Your task to perform on an android device: Open calendar and show me the first week of next month Image 0: 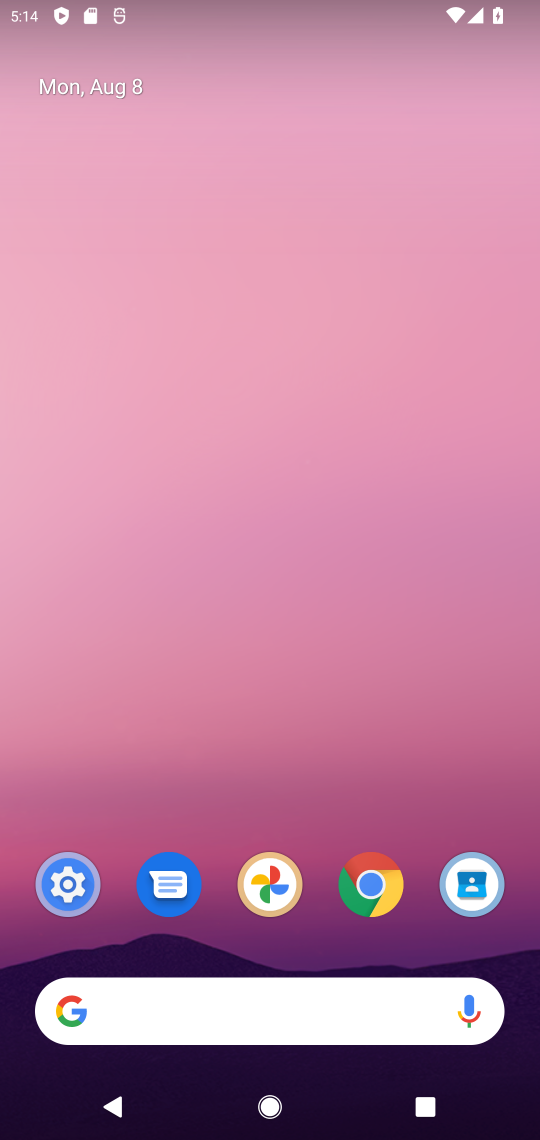
Step 0: drag from (419, 820) to (321, 190)
Your task to perform on an android device: Open calendar and show me the first week of next month Image 1: 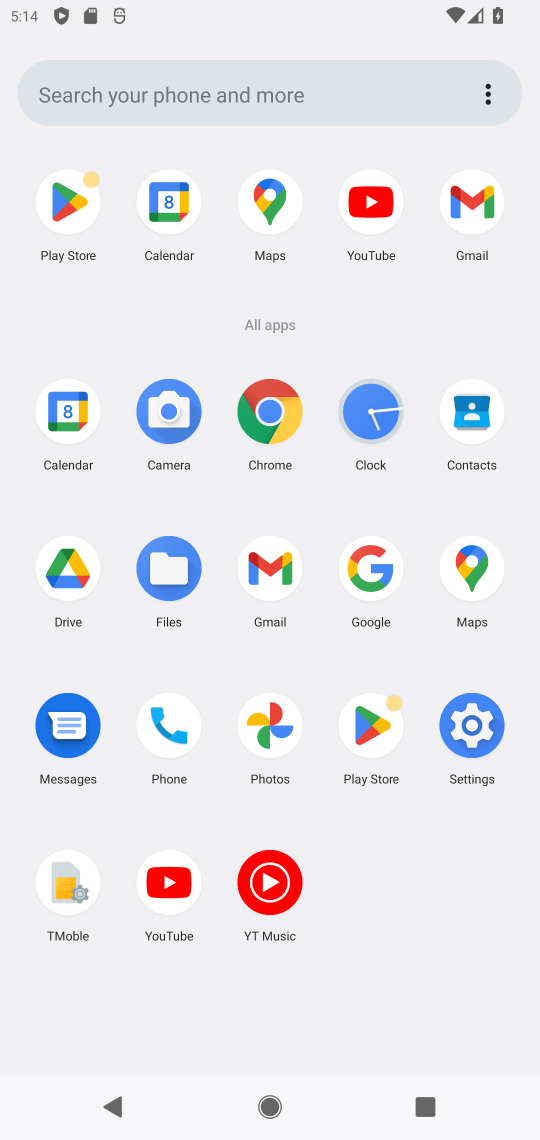
Step 1: click (75, 405)
Your task to perform on an android device: Open calendar and show me the first week of next month Image 2: 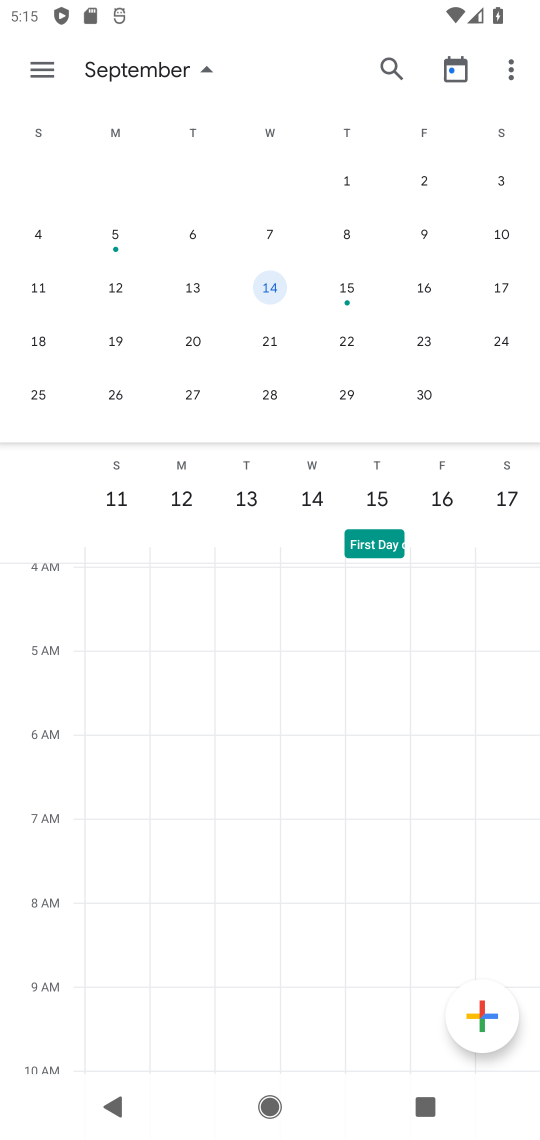
Step 2: click (30, 64)
Your task to perform on an android device: Open calendar and show me the first week of next month Image 3: 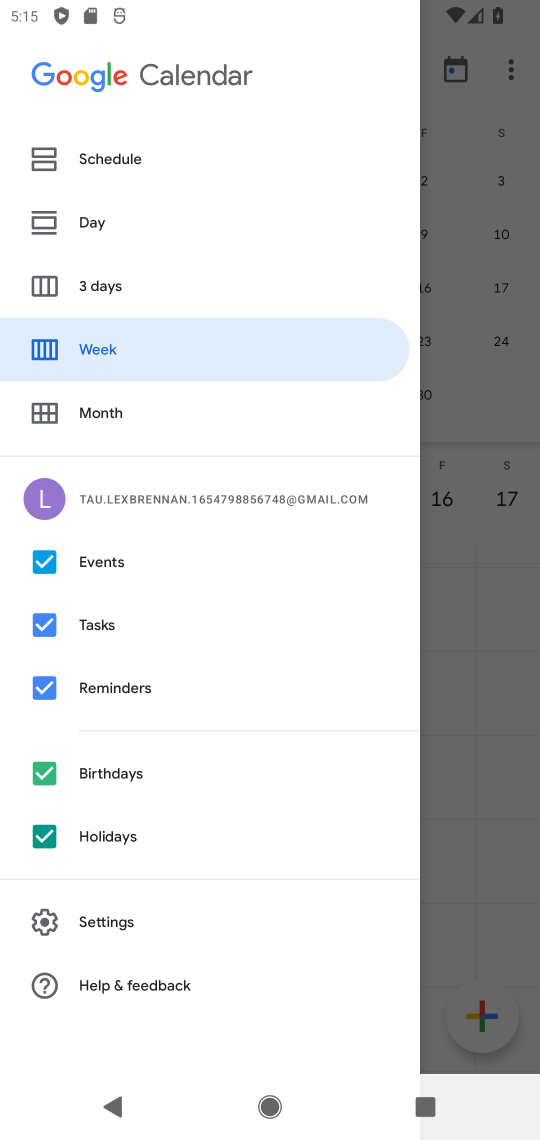
Step 3: click (176, 351)
Your task to perform on an android device: Open calendar and show me the first week of next month Image 4: 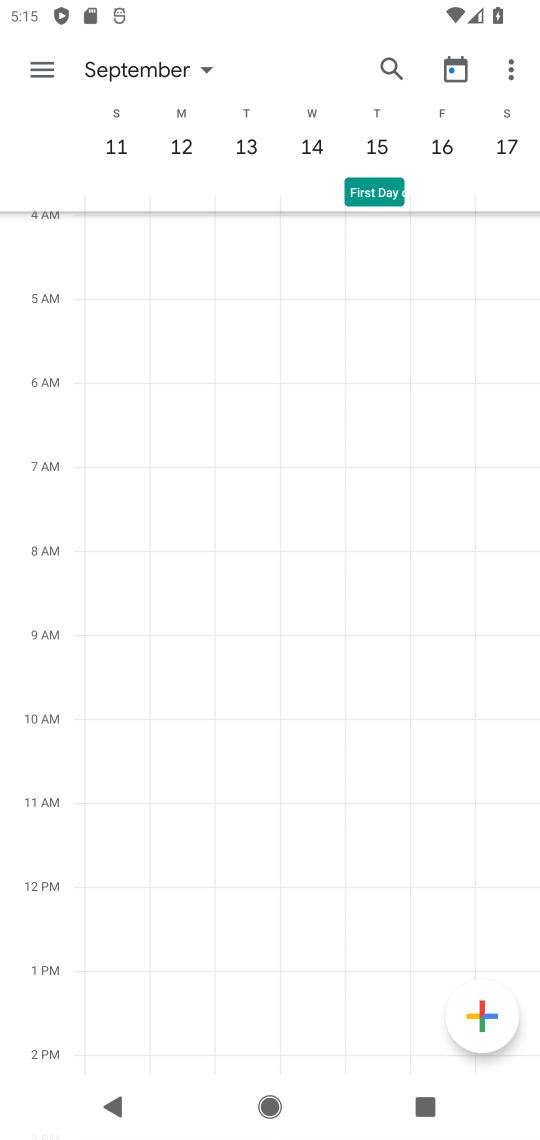
Step 4: click (208, 71)
Your task to perform on an android device: Open calendar and show me the first week of next month Image 5: 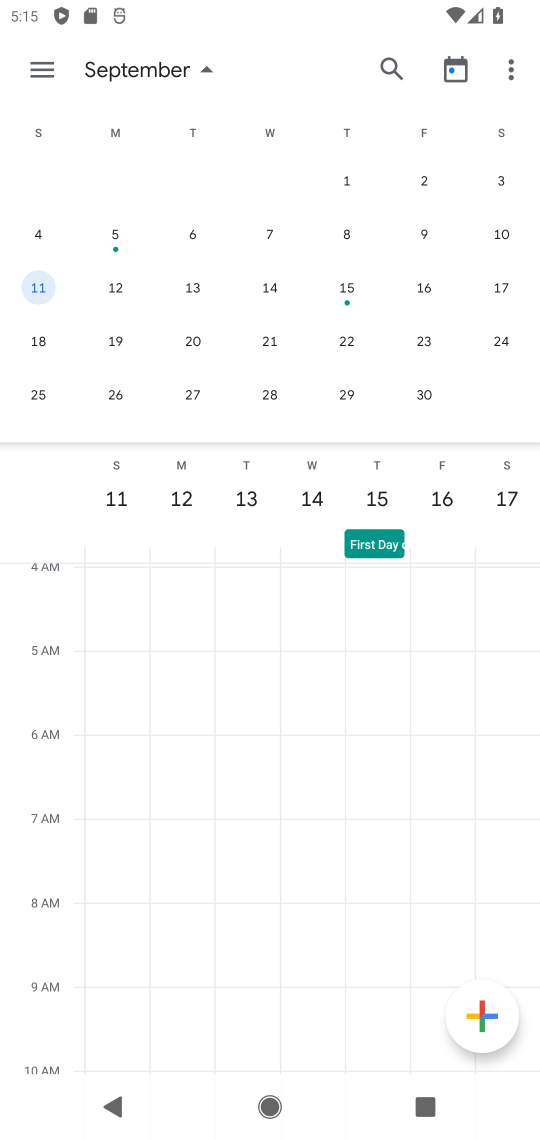
Step 5: click (509, 318)
Your task to perform on an android device: Open calendar and show me the first week of next month Image 6: 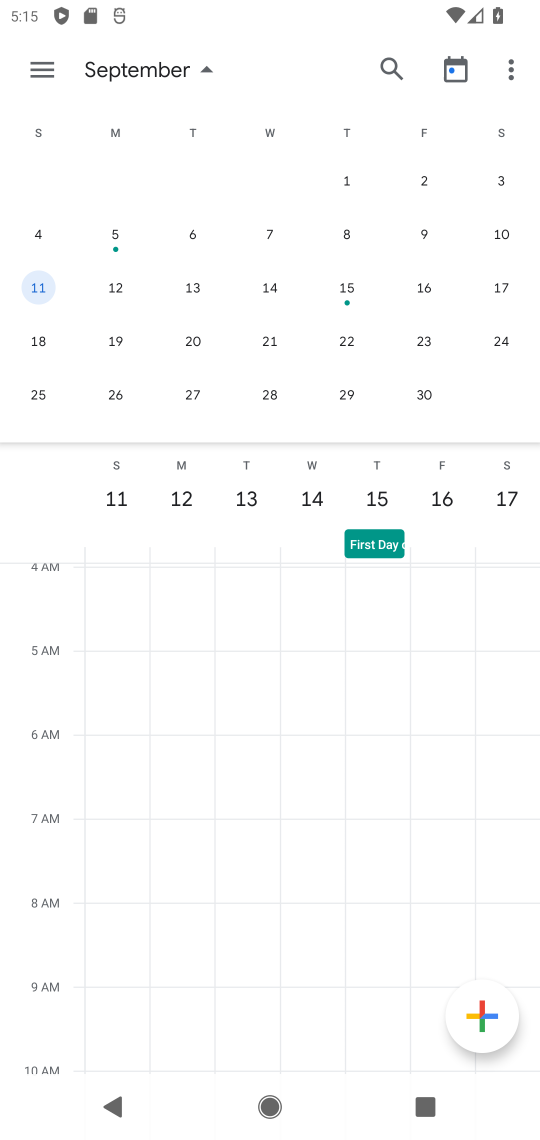
Step 6: click (356, 232)
Your task to perform on an android device: Open calendar and show me the first week of next month Image 7: 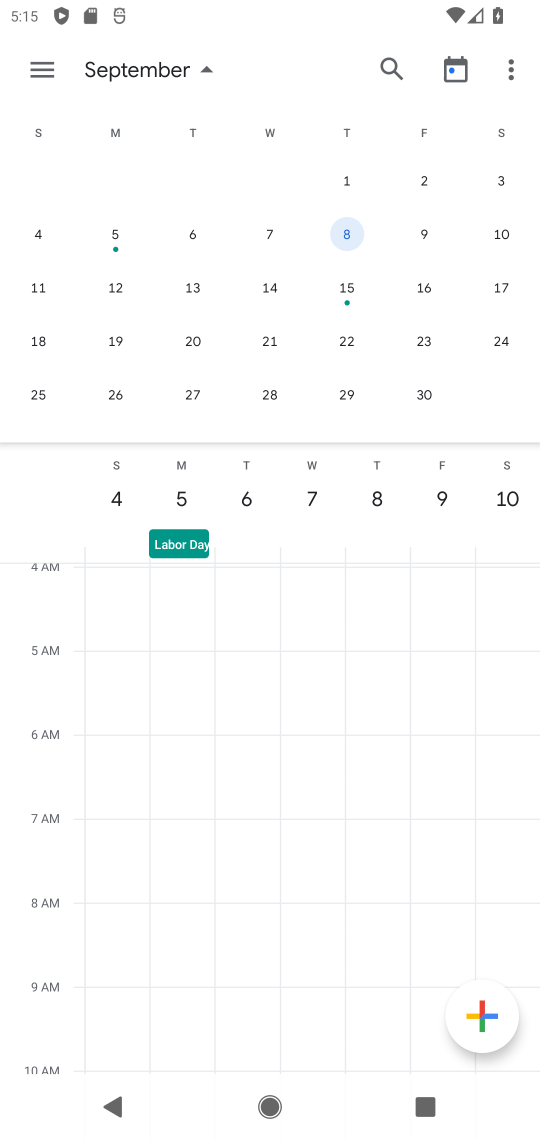
Step 7: task complete